Your task to perform on an android device: Go to location settings Image 0: 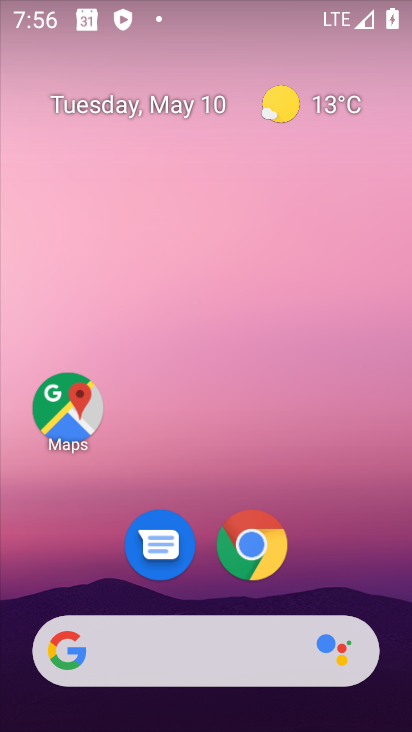
Step 0: click (256, 545)
Your task to perform on an android device: Go to location settings Image 1: 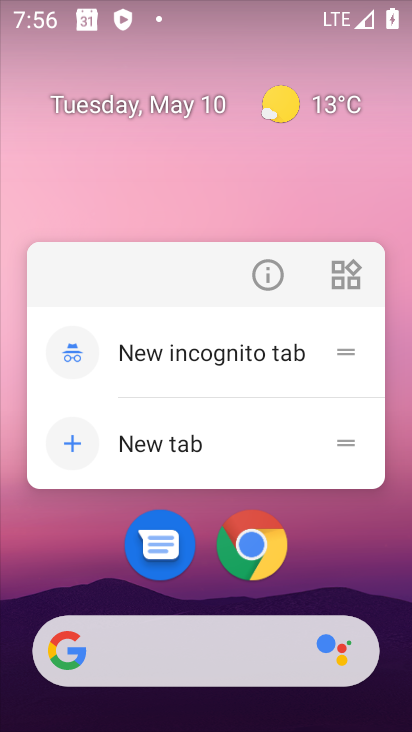
Step 1: click (249, 540)
Your task to perform on an android device: Go to location settings Image 2: 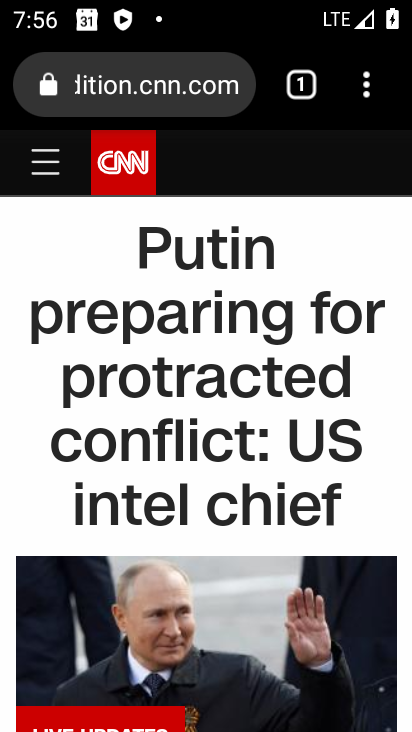
Step 2: click (367, 76)
Your task to perform on an android device: Go to location settings Image 3: 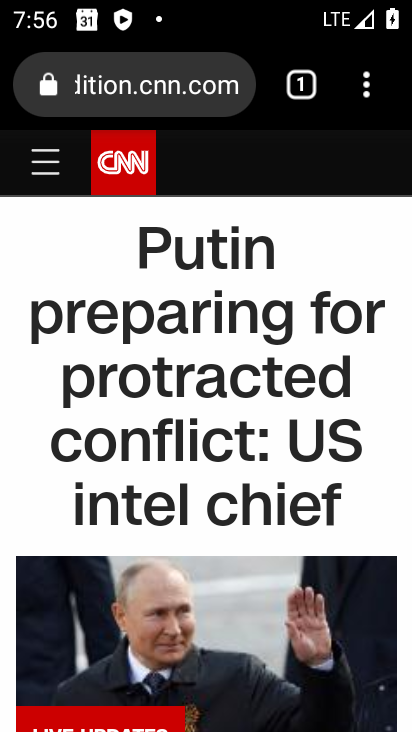
Step 3: click (363, 89)
Your task to perform on an android device: Go to location settings Image 4: 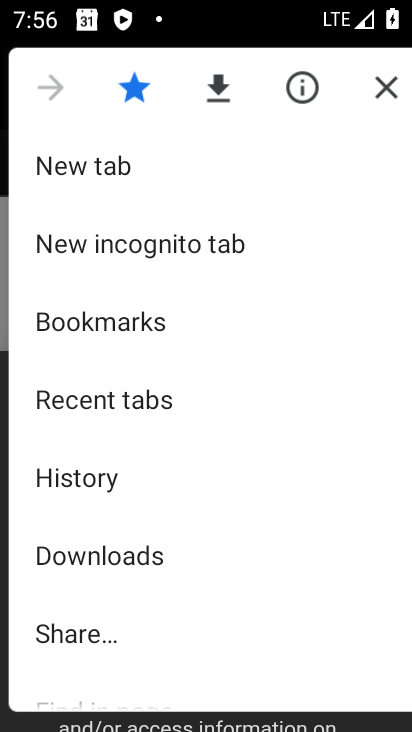
Step 4: drag from (152, 599) to (171, 179)
Your task to perform on an android device: Go to location settings Image 5: 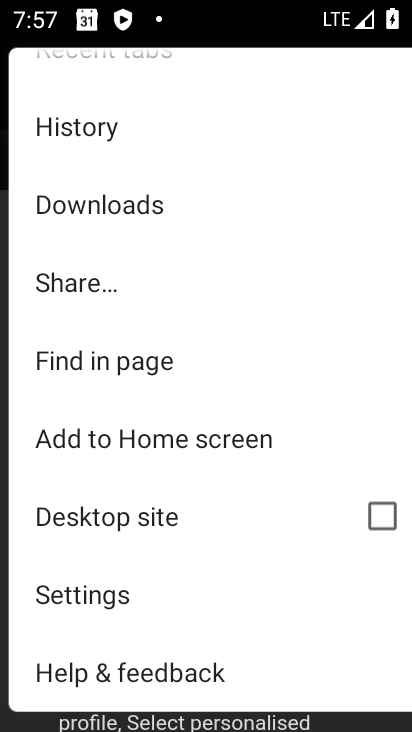
Step 5: drag from (179, 629) to (181, 385)
Your task to perform on an android device: Go to location settings Image 6: 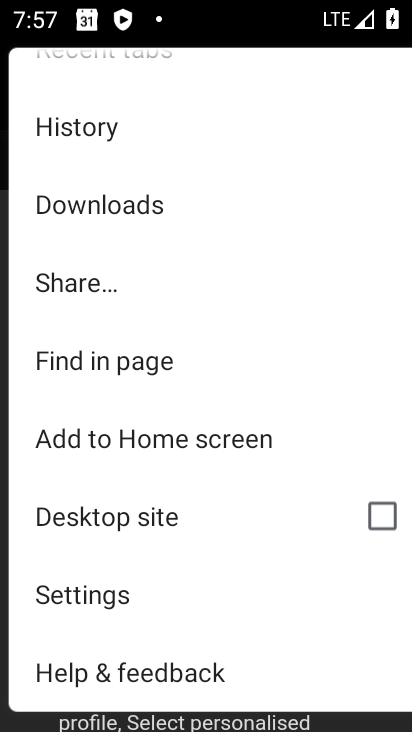
Step 6: click (145, 588)
Your task to perform on an android device: Go to location settings Image 7: 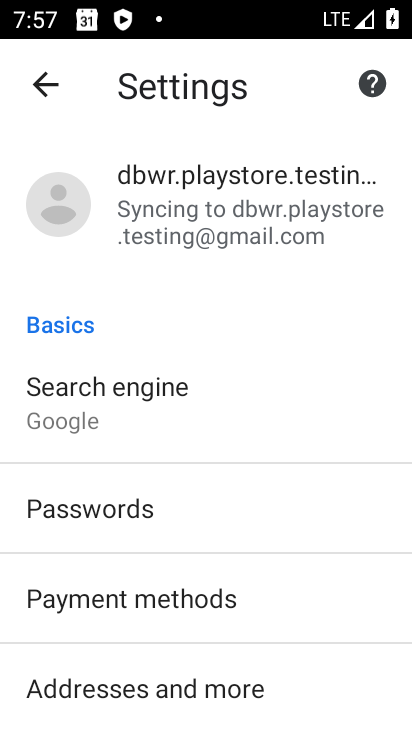
Step 7: drag from (239, 661) to (228, 271)
Your task to perform on an android device: Go to location settings Image 8: 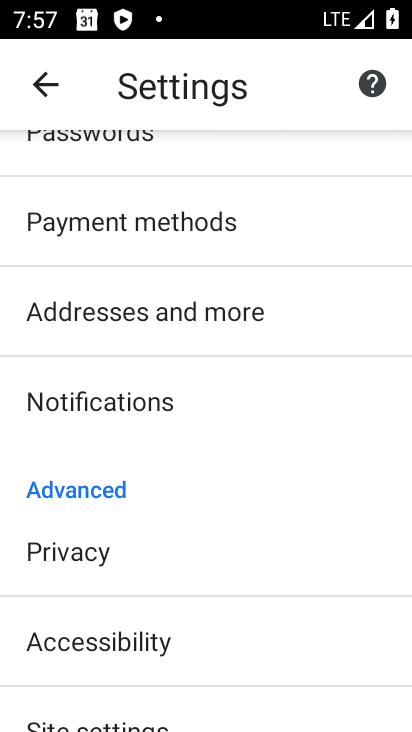
Step 8: drag from (197, 648) to (165, 304)
Your task to perform on an android device: Go to location settings Image 9: 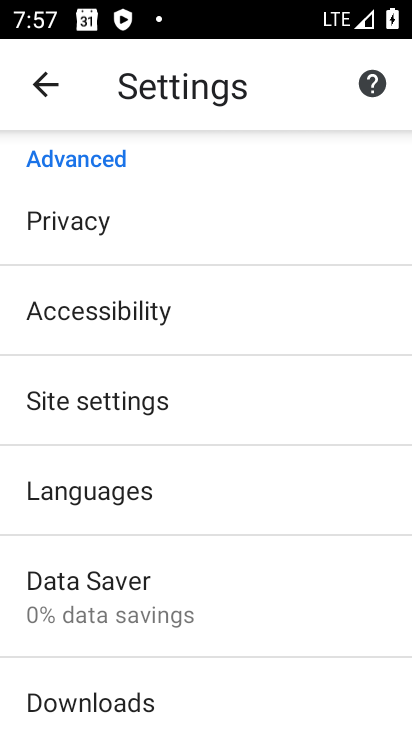
Step 9: click (186, 403)
Your task to perform on an android device: Go to location settings Image 10: 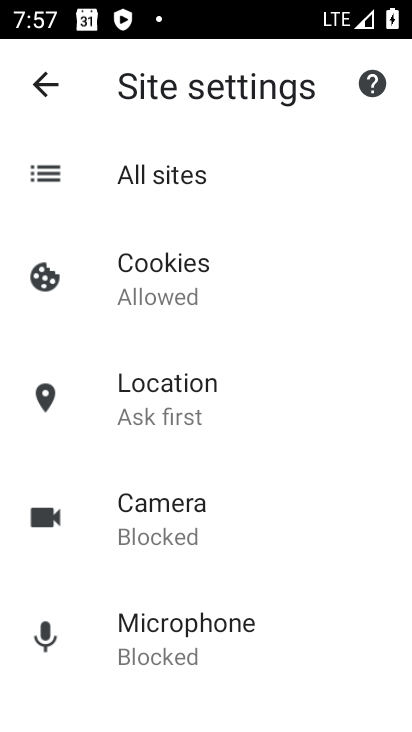
Step 10: click (205, 394)
Your task to perform on an android device: Go to location settings Image 11: 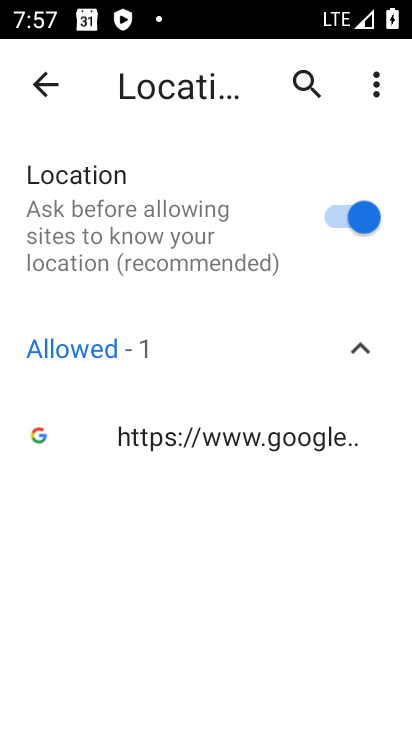
Step 11: click (341, 213)
Your task to perform on an android device: Go to location settings Image 12: 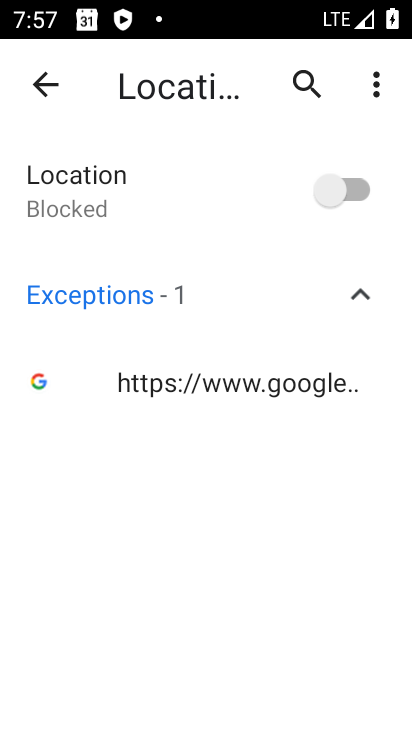
Step 12: task complete